Your task to perform on an android device: add a contact Image 0: 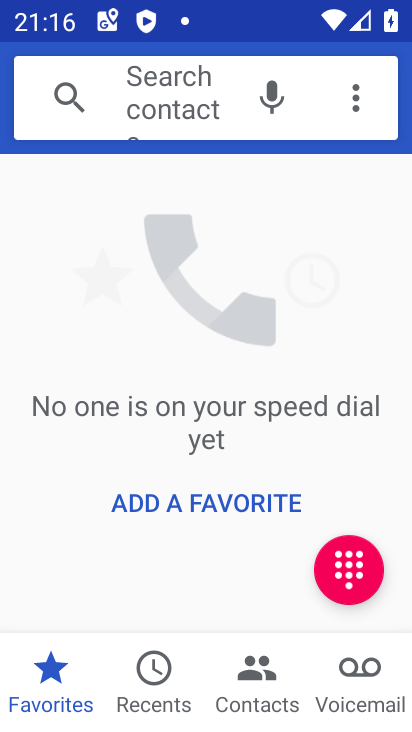
Step 0: press home button
Your task to perform on an android device: add a contact Image 1: 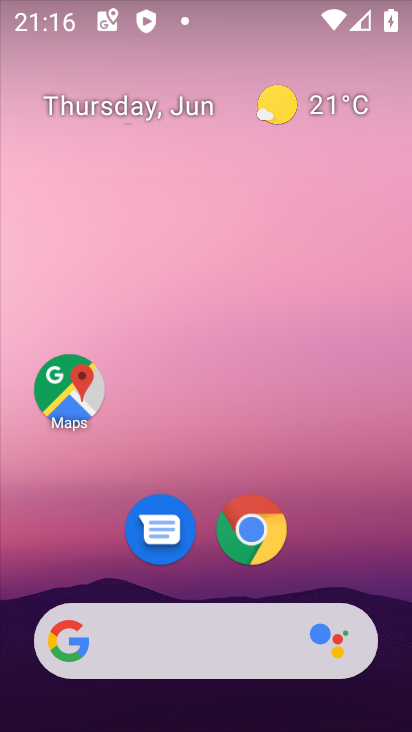
Step 1: drag from (330, 525) to (217, 94)
Your task to perform on an android device: add a contact Image 2: 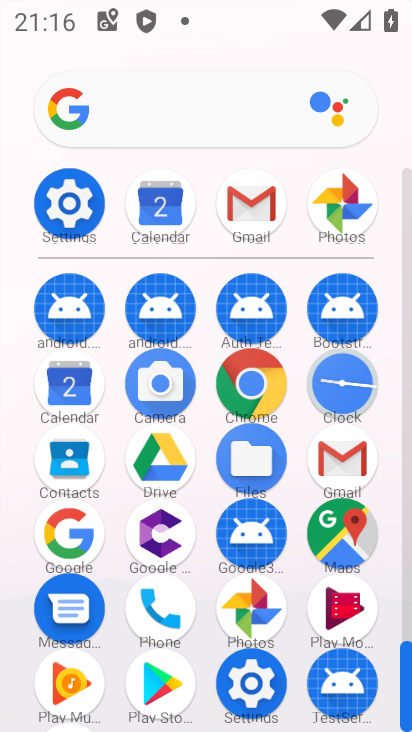
Step 2: click (71, 470)
Your task to perform on an android device: add a contact Image 3: 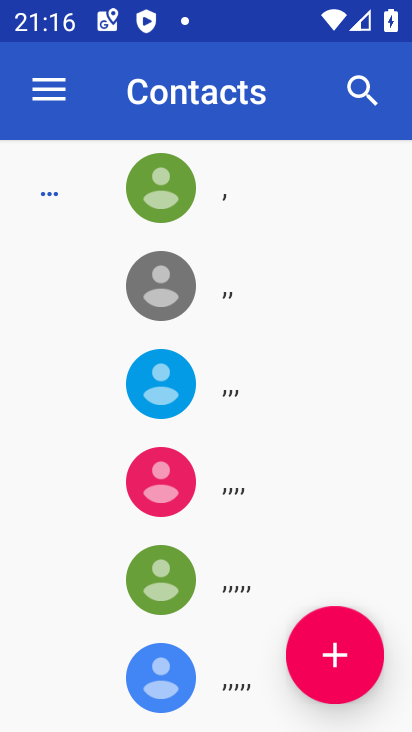
Step 3: click (332, 668)
Your task to perform on an android device: add a contact Image 4: 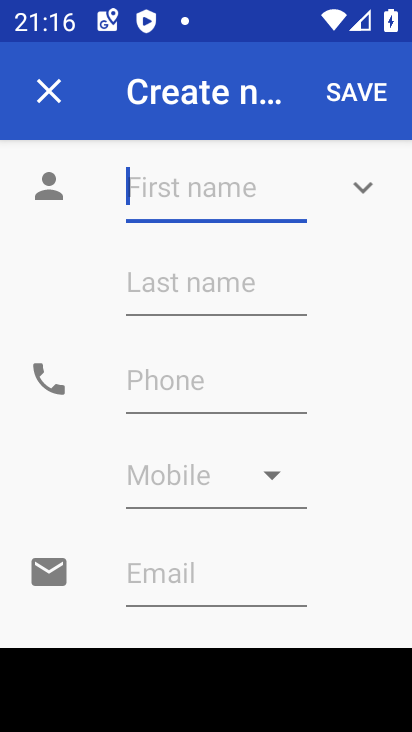
Step 4: type "qwasz"
Your task to perform on an android device: add a contact Image 5: 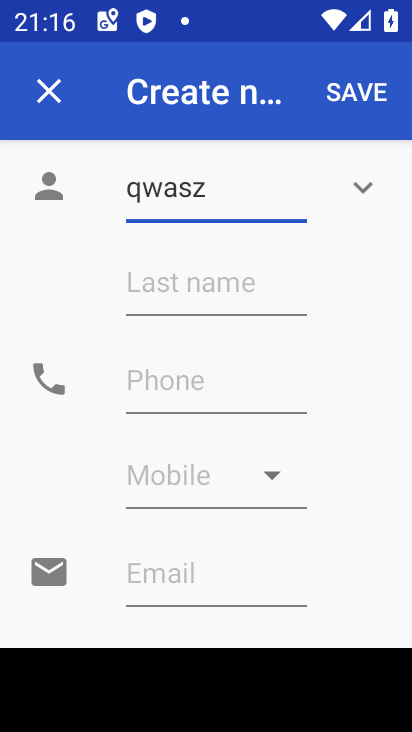
Step 5: click (171, 396)
Your task to perform on an android device: add a contact Image 6: 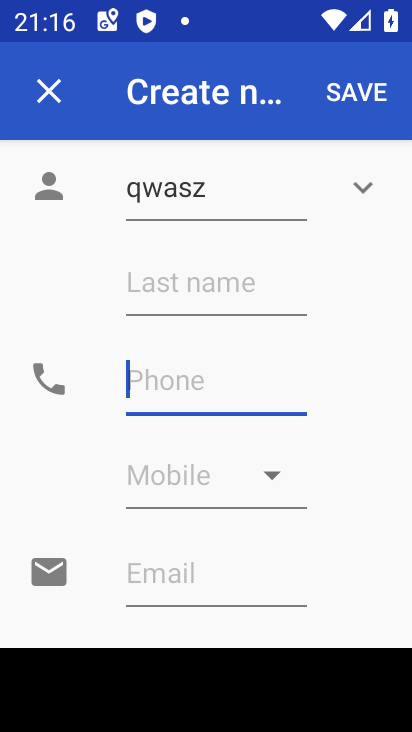
Step 6: type "09876545678987654e"
Your task to perform on an android device: add a contact Image 7: 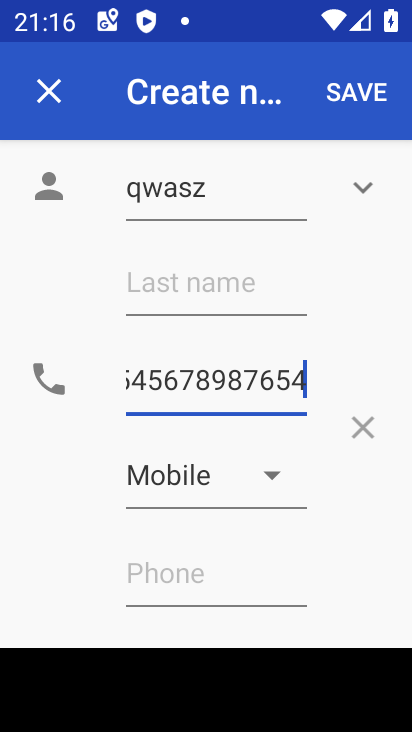
Step 7: click (344, 84)
Your task to perform on an android device: add a contact Image 8: 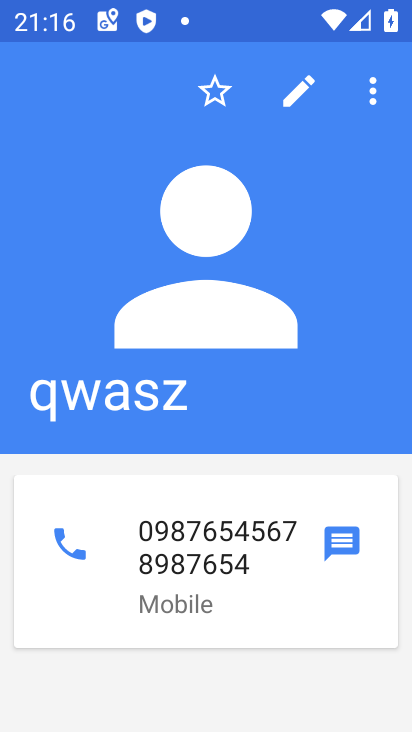
Step 8: task complete